Your task to perform on an android device: Open Android settings Image 0: 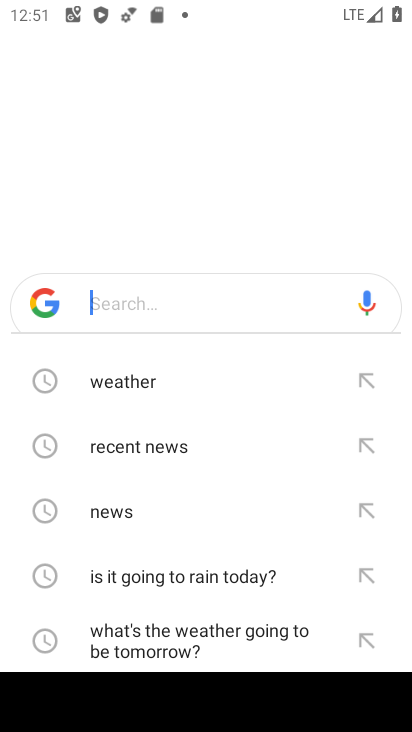
Step 0: press home button
Your task to perform on an android device: Open Android settings Image 1: 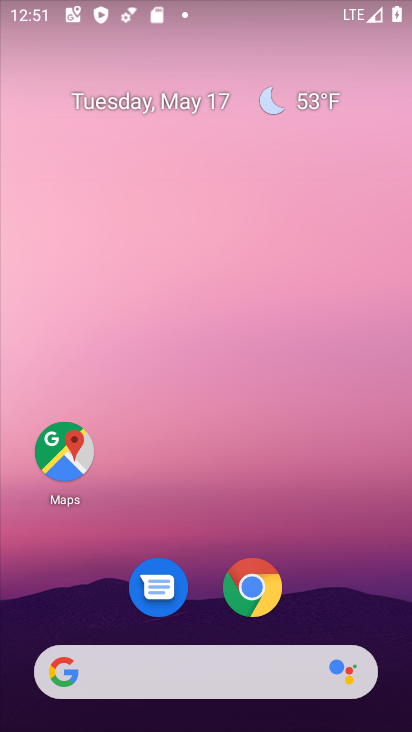
Step 1: drag from (186, 622) to (146, 82)
Your task to perform on an android device: Open Android settings Image 2: 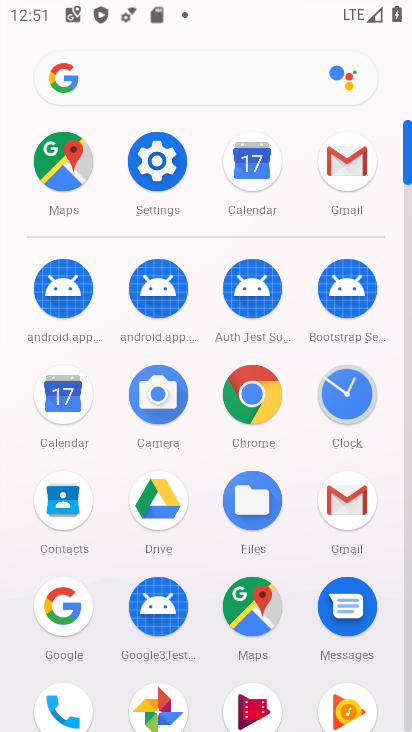
Step 2: click (166, 166)
Your task to perform on an android device: Open Android settings Image 3: 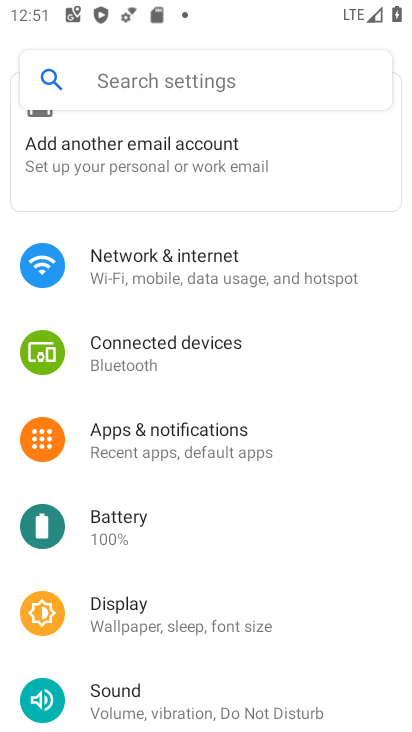
Step 3: drag from (216, 429) to (208, 54)
Your task to perform on an android device: Open Android settings Image 4: 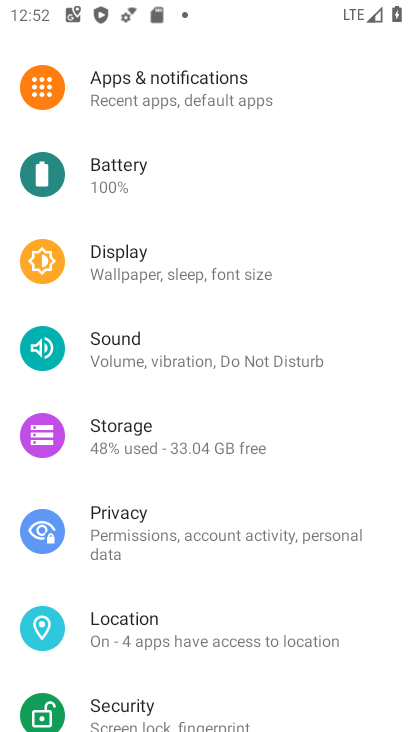
Step 4: drag from (234, 535) to (182, 110)
Your task to perform on an android device: Open Android settings Image 5: 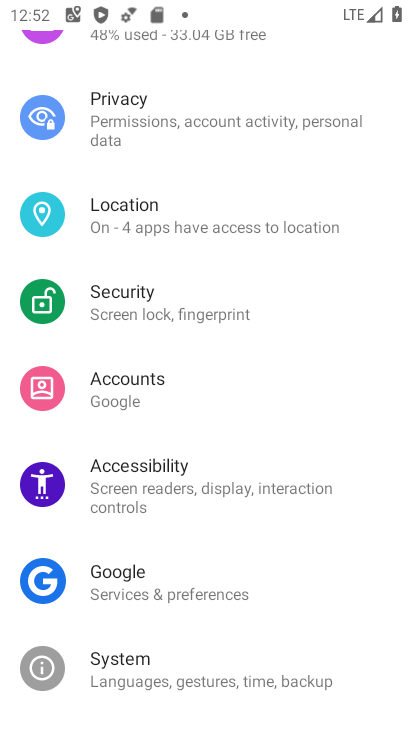
Step 5: drag from (215, 657) to (183, 171)
Your task to perform on an android device: Open Android settings Image 6: 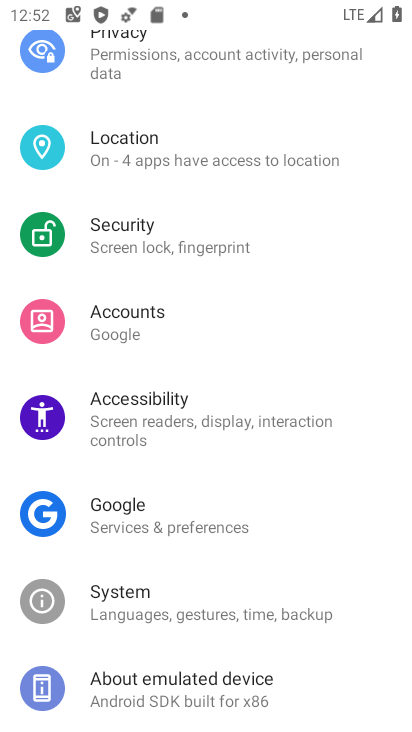
Step 6: click (199, 673)
Your task to perform on an android device: Open Android settings Image 7: 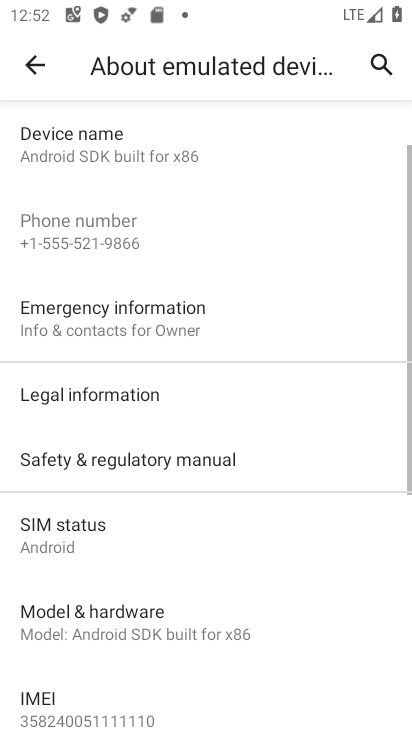
Step 7: drag from (199, 673) to (156, 168)
Your task to perform on an android device: Open Android settings Image 8: 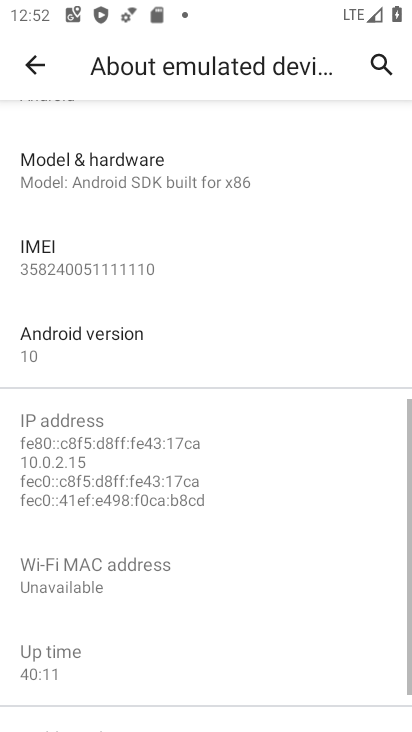
Step 8: click (125, 332)
Your task to perform on an android device: Open Android settings Image 9: 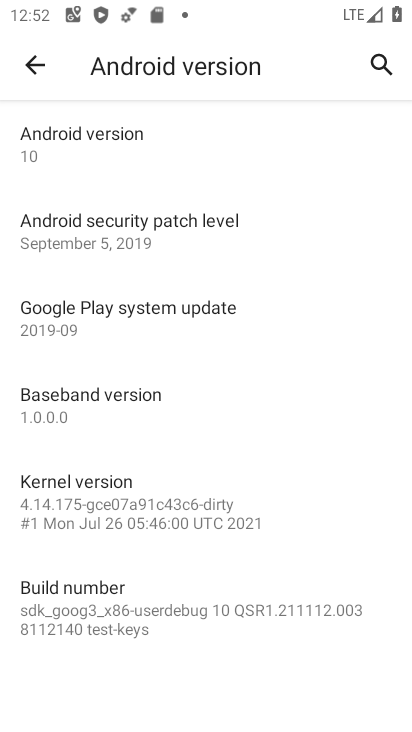
Step 9: task complete